Your task to perform on an android device: Go to settings Image 0: 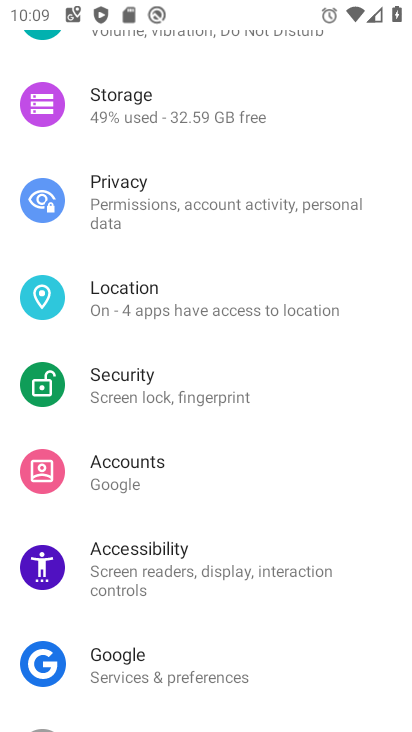
Step 0: press home button
Your task to perform on an android device: Go to settings Image 1: 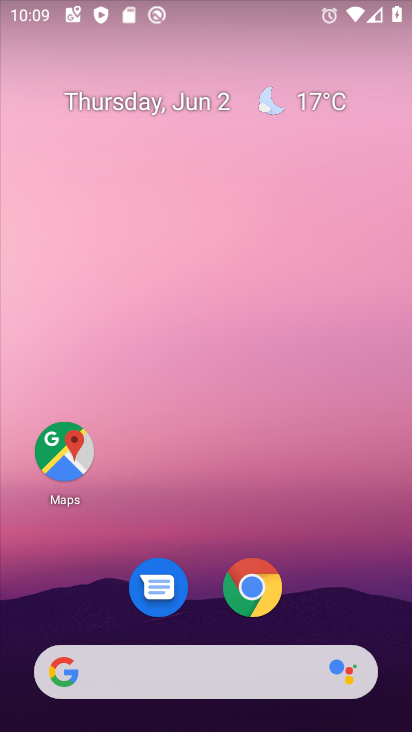
Step 1: drag from (208, 614) to (237, 128)
Your task to perform on an android device: Go to settings Image 2: 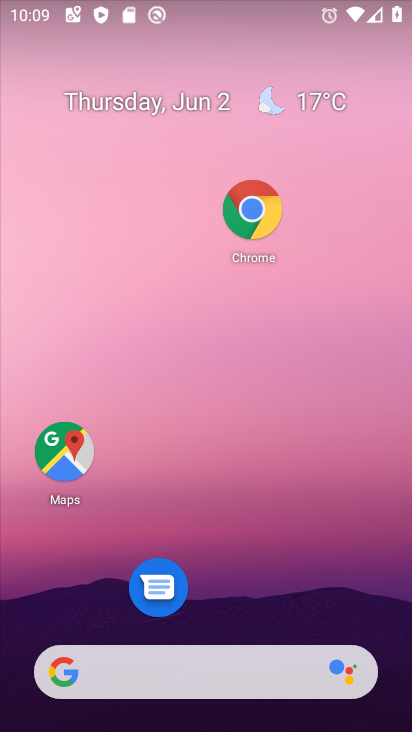
Step 2: drag from (222, 619) to (215, 101)
Your task to perform on an android device: Go to settings Image 3: 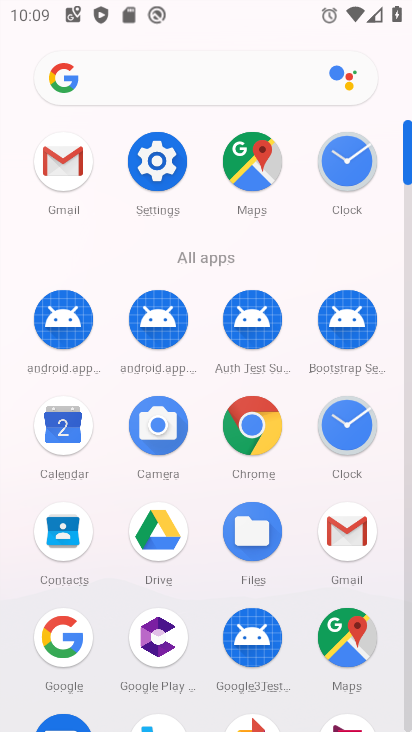
Step 3: click (153, 153)
Your task to perform on an android device: Go to settings Image 4: 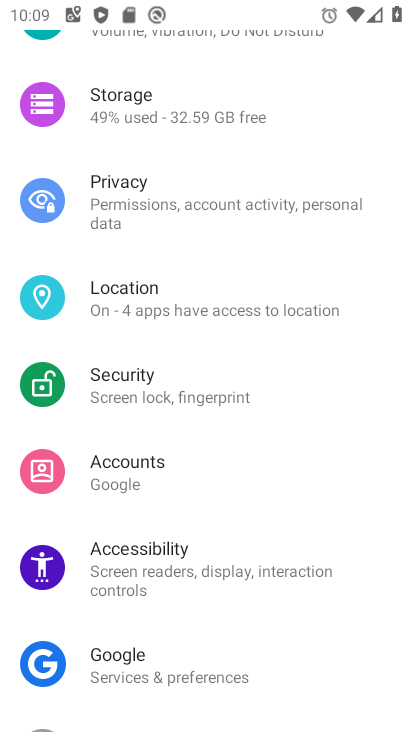
Step 4: task complete